Your task to perform on an android device: open app "Life360: Find Family & Friends" Image 0: 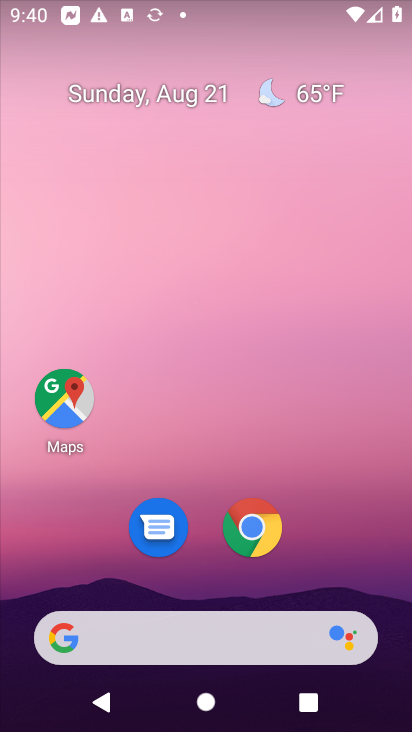
Step 0: drag from (187, 592) to (376, 0)
Your task to perform on an android device: open app "Life360: Find Family & Friends" Image 1: 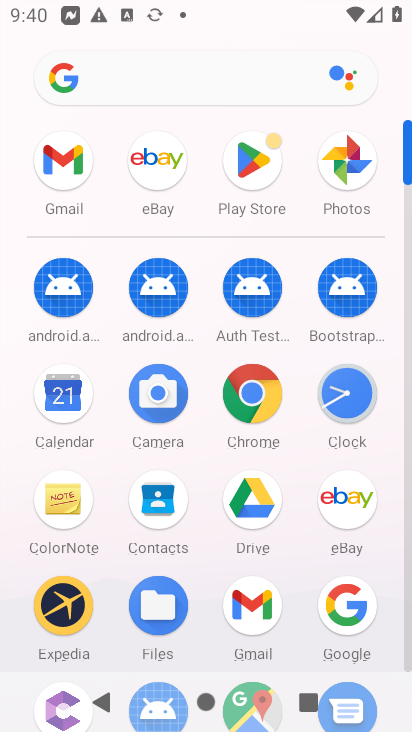
Step 1: click (265, 179)
Your task to perform on an android device: open app "Life360: Find Family & Friends" Image 2: 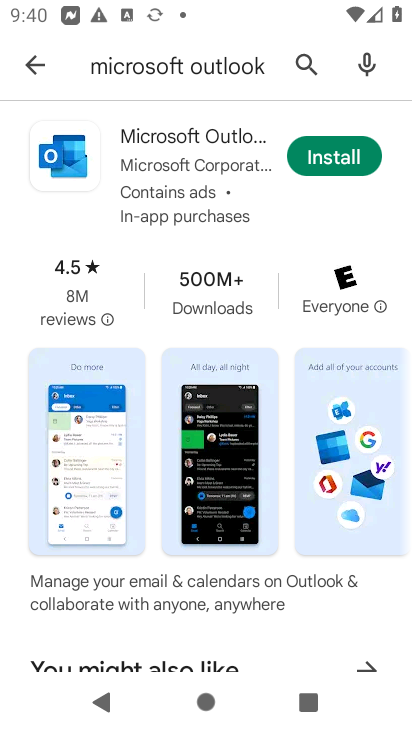
Step 2: click (180, 68)
Your task to perform on an android device: open app "Life360: Find Family & Friends" Image 3: 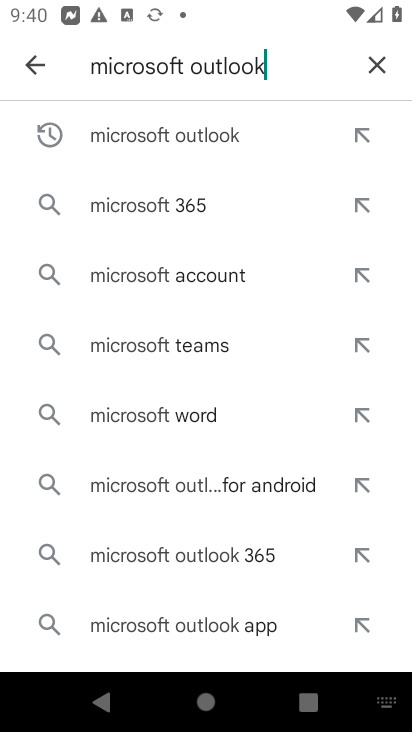
Step 3: click (378, 59)
Your task to perform on an android device: open app "Life360: Find Family & Friends" Image 4: 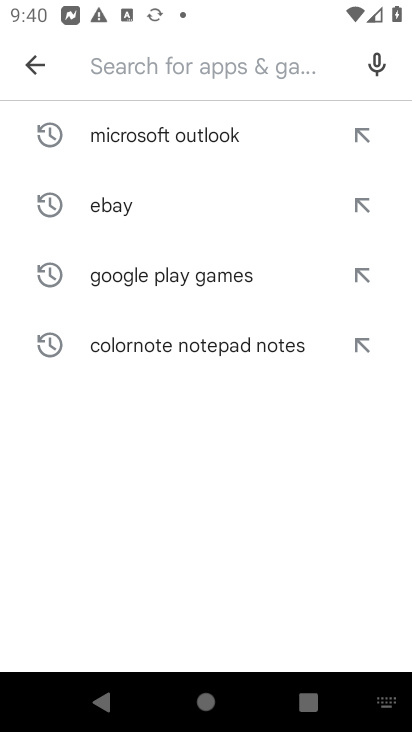
Step 4: type "life360 "
Your task to perform on an android device: open app "Life360: Find Family & Friends" Image 5: 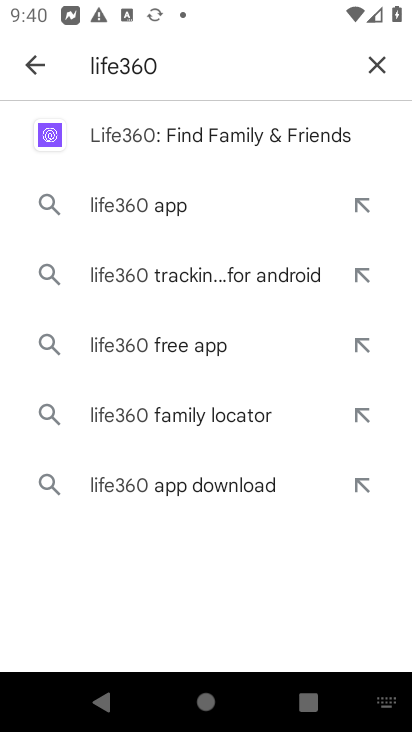
Step 5: click (157, 147)
Your task to perform on an android device: open app "Life360: Find Family & Friends" Image 6: 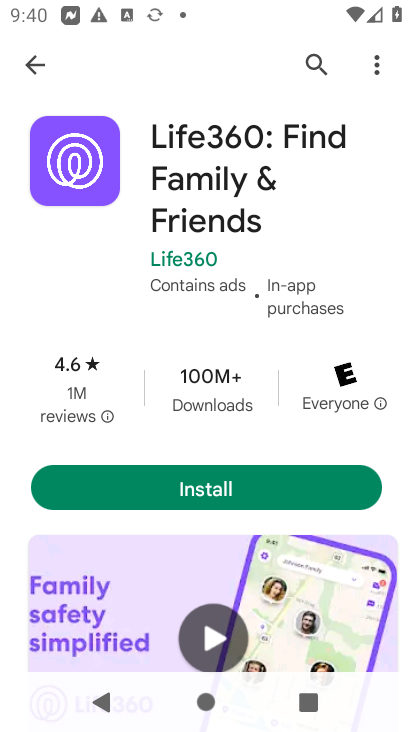
Step 6: task complete